Your task to perform on an android device: change your default location settings in chrome Image 0: 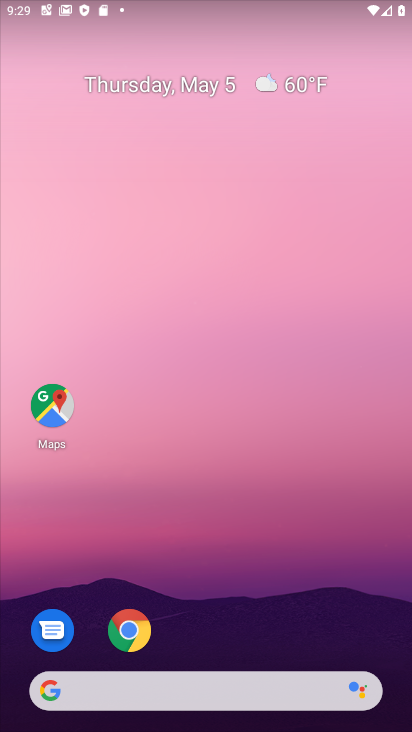
Step 0: click (141, 625)
Your task to perform on an android device: change your default location settings in chrome Image 1: 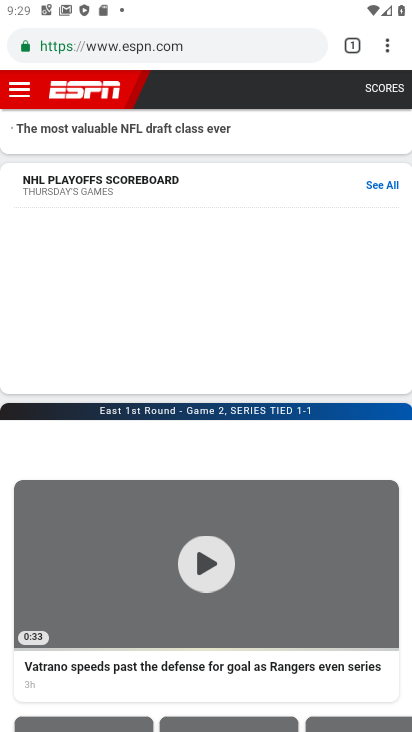
Step 1: click (387, 44)
Your task to perform on an android device: change your default location settings in chrome Image 2: 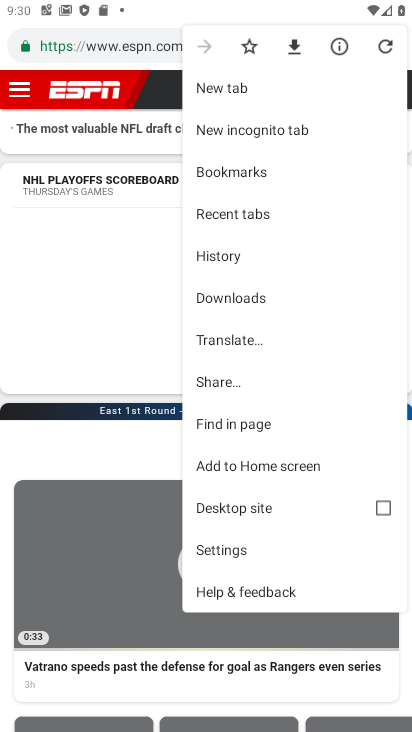
Step 2: click (236, 550)
Your task to perform on an android device: change your default location settings in chrome Image 3: 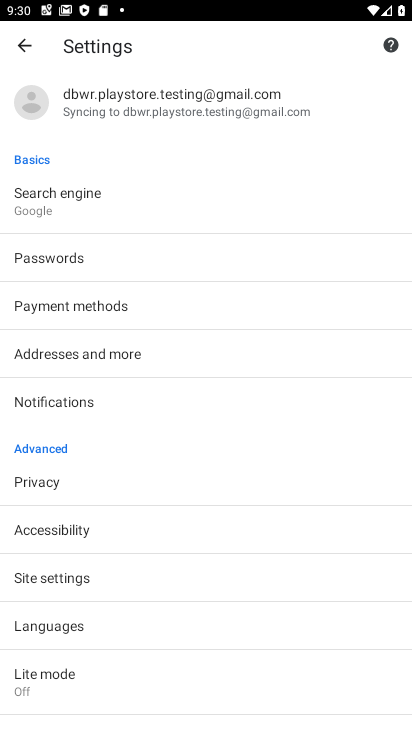
Step 3: drag from (220, 680) to (194, 487)
Your task to perform on an android device: change your default location settings in chrome Image 4: 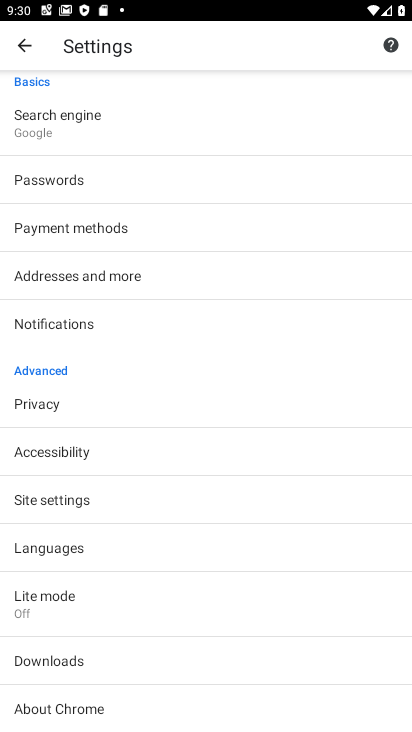
Step 4: click (141, 492)
Your task to perform on an android device: change your default location settings in chrome Image 5: 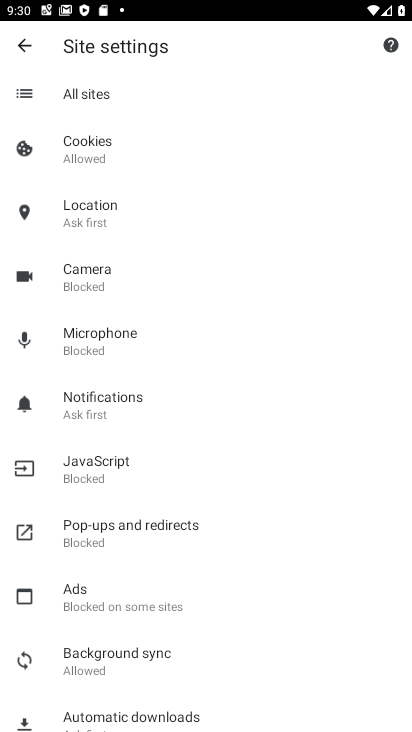
Step 5: click (150, 215)
Your task to perform on an android device: change your default location settings in chrome Image 6: 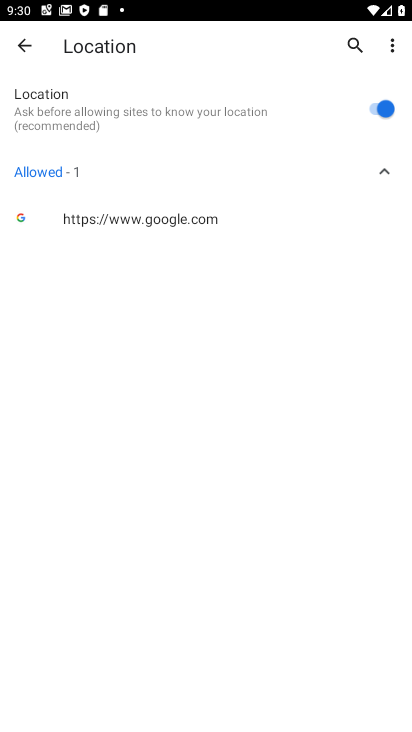
Step 6: click (366, 107)
Your task to perform on an android device: change your default location settings in chrome Image 7: 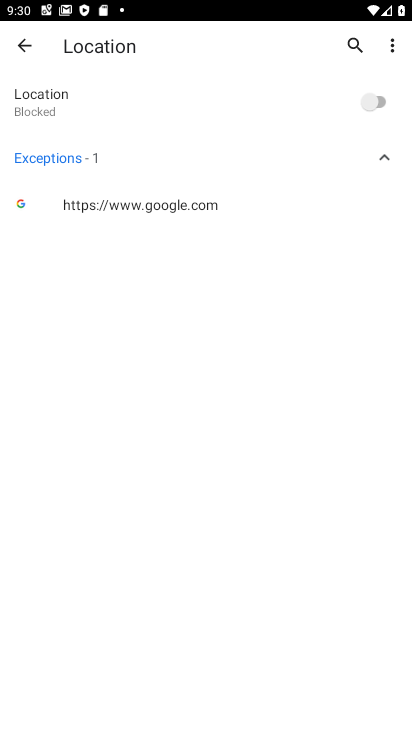
Step 7: task complete